Your task to perform on an android device: change text size in settings app Image 0: 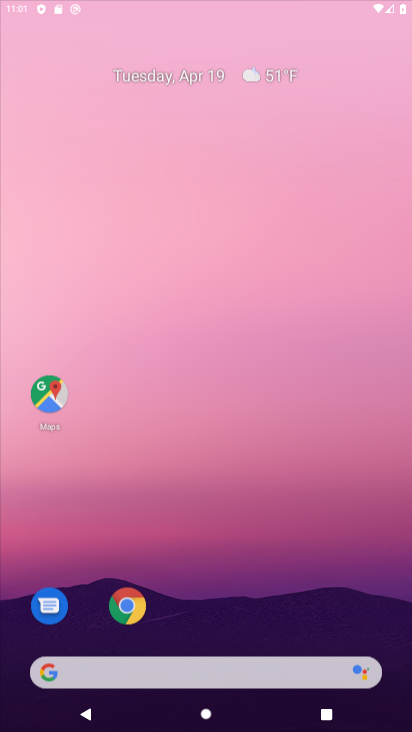
Step 0: drag from (345, 207) to (374, 89)
Your task to perform on an android device: change text size in settings app Image 1: 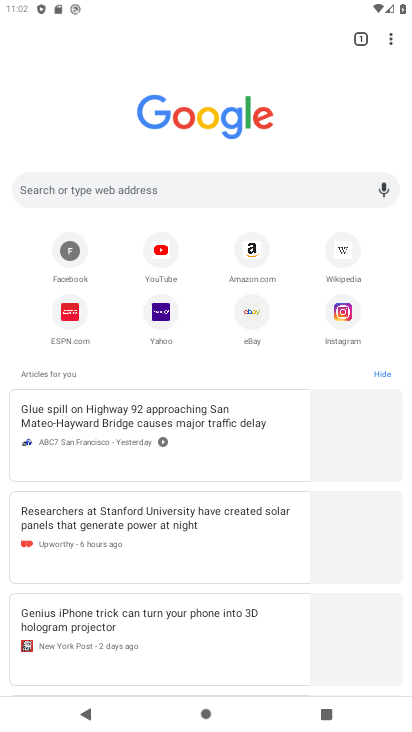
Step 1: press home button
Your task to perform on an android device: change text size in settings app Image 2: 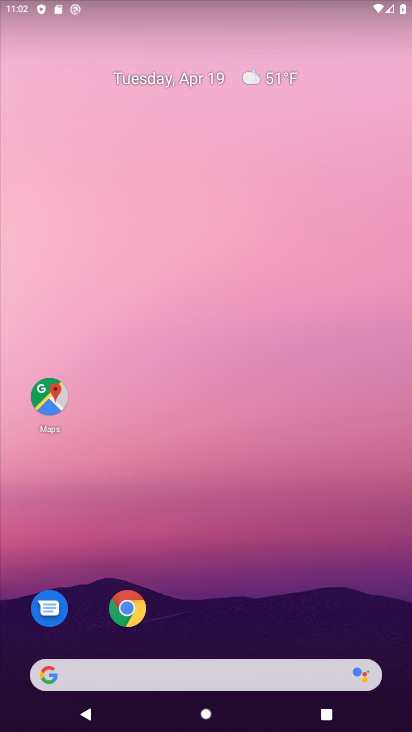
Step 2: drag from (340, 527) to (397, 102)
Your task to perform on an android device: change text size in settings app Image 3: 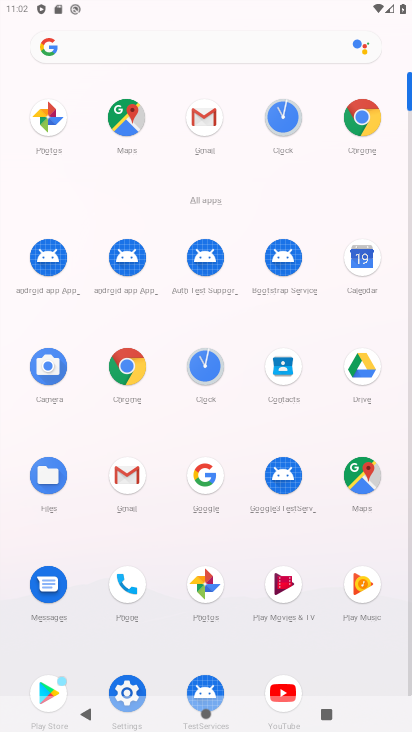
Step 3: drag from (363, 637) to (393, 295)
Your task to perform on an android device: change text size in settings app Image 4: 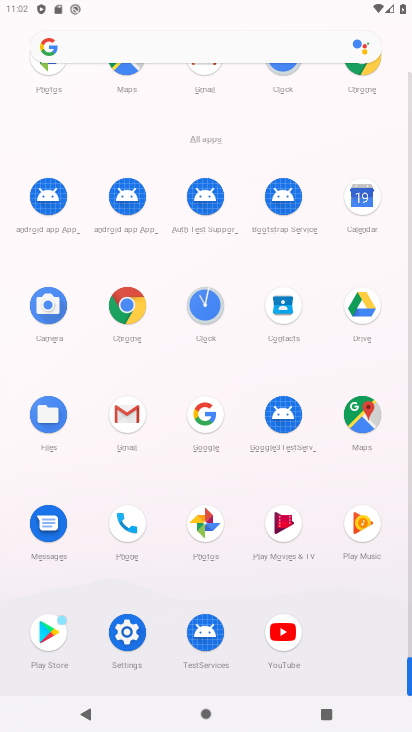
Step 4: click (131, 636)
Your task to perform on an android device: change text size in settings app Image 5: 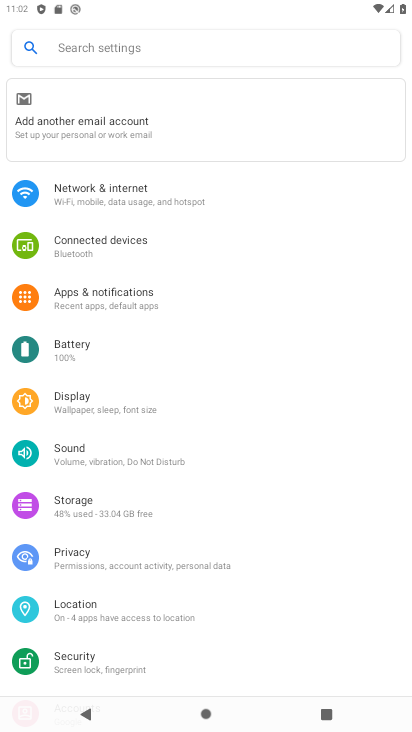
Step 5: click (134, 408)
Your task to perform on an android device: change text size in settings app Image 6: 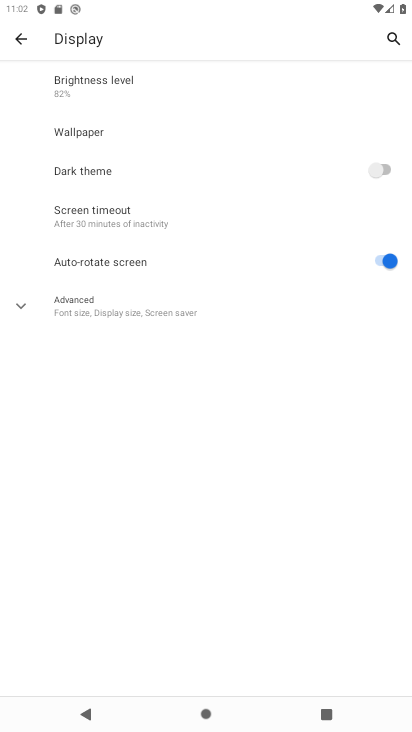
Step 6: click (139, 316)
Your task to perform on an android device: change text size in settings app Image 7: 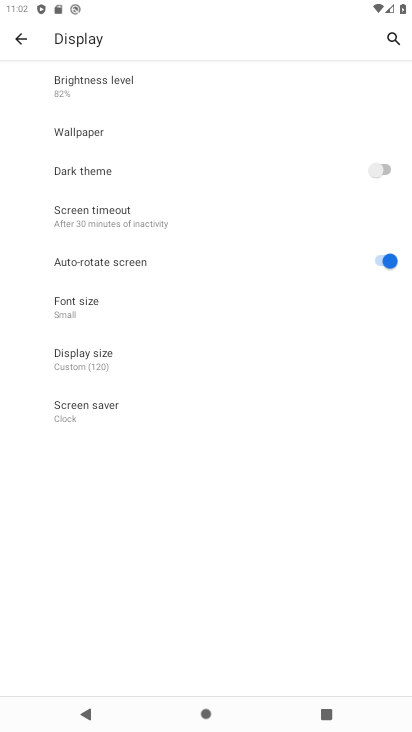
Step 7: click (65, 309)
Your task to perform on an android device: change text size in settings app Image 8: 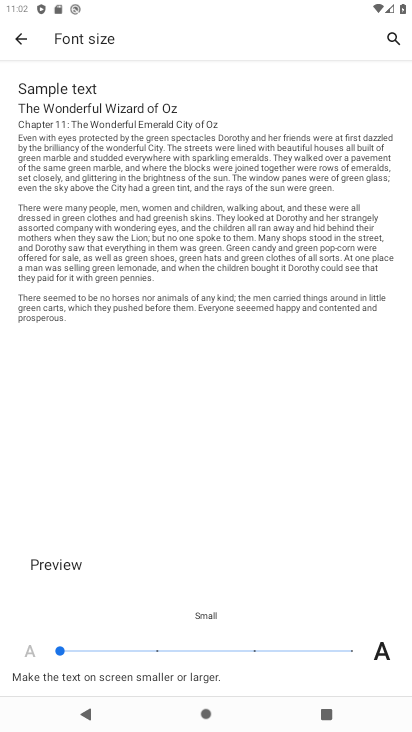
Step 8: click (152, 653)
Your task to perform on an android device: change text size in settings app Image 9: 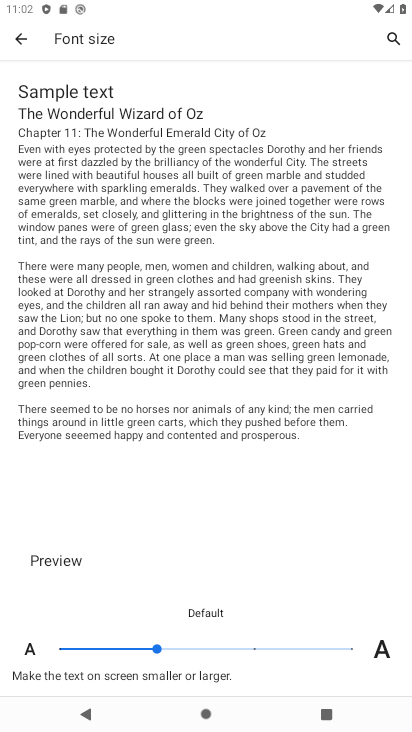
Step 9: task complete